Your task to perform on an android device: delete a single message in the gmail app Image 0: 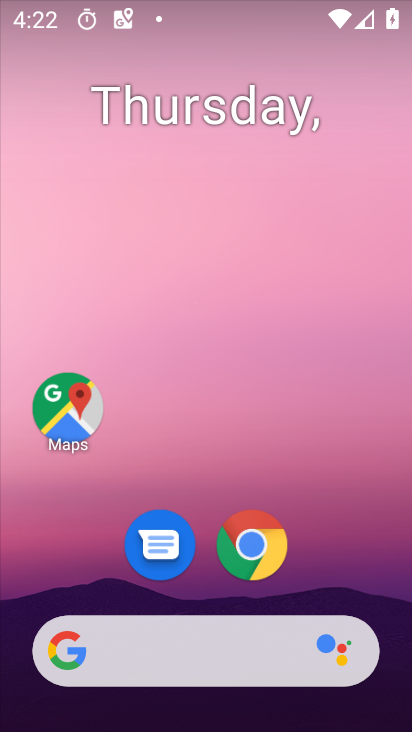
Step 0: drag from (228, 722) to (217, 140)
Your task to perform on an android device: delete a single message in the gmail app Image 1: 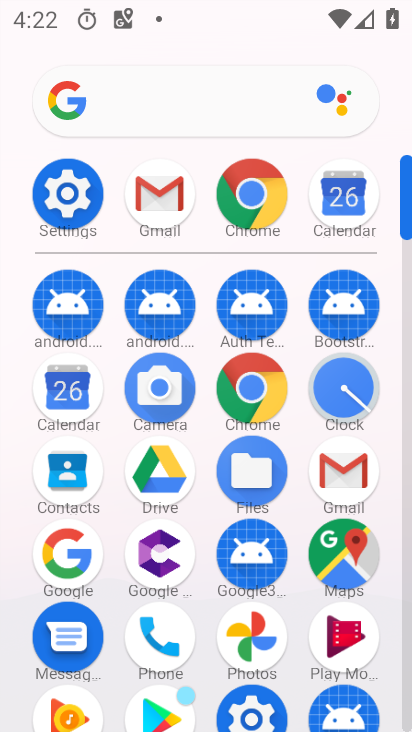
Step 1: click (336, 474)
Your task to perform on an android device: delete a single message in the gmail app Image 2: 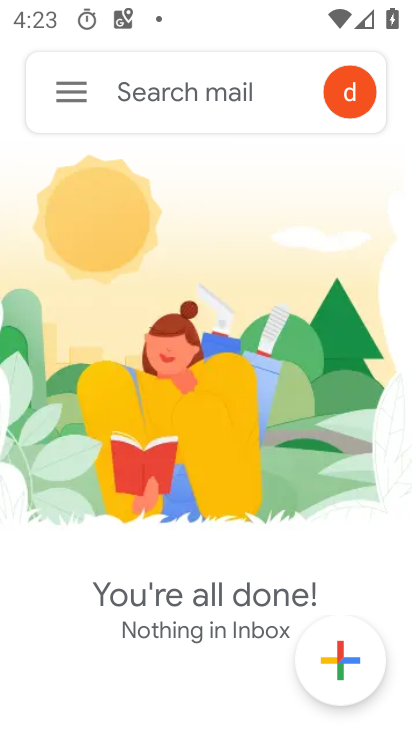
Step 2: task complete